Your task to perform on an android device: toggle sleep mode Image 0: 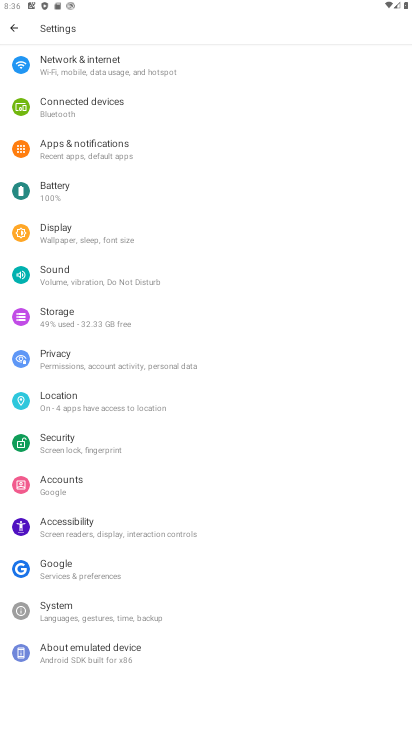
Step 0: click (58, 231)
Your task to perform on an android device: toggle sleep mode Image 1: 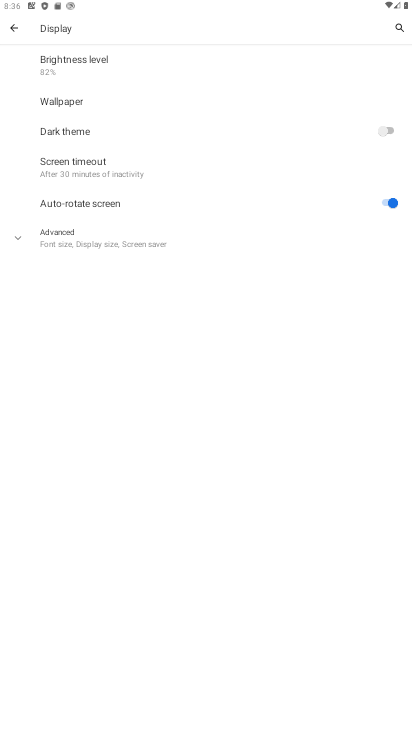
Step 1: click (107, 173)
Your task to perform on an android device: toggle sleep mode Image 2: 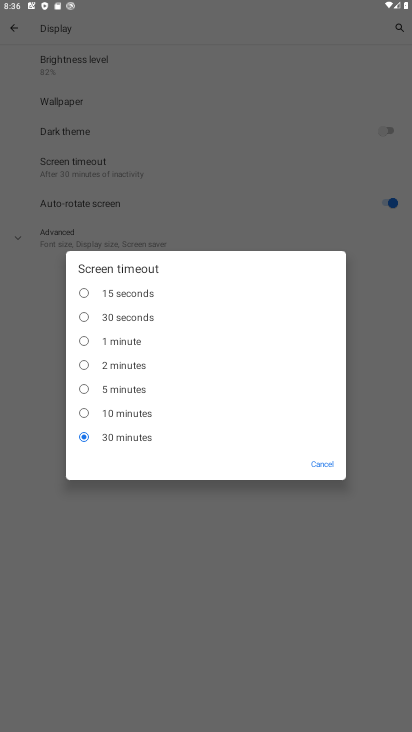
Step 2: click (131, 416)
Your task to perform on an android device: toggle sleep mode Image 3: 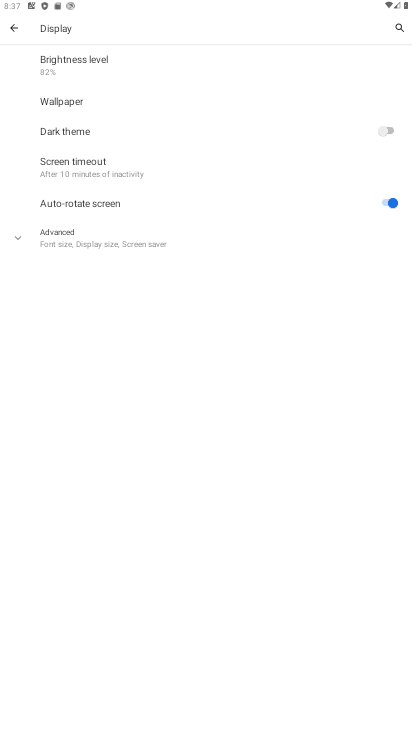
Step 3: task complete